Your task to perform on an android device: find which apps use the phone's location Image 0: 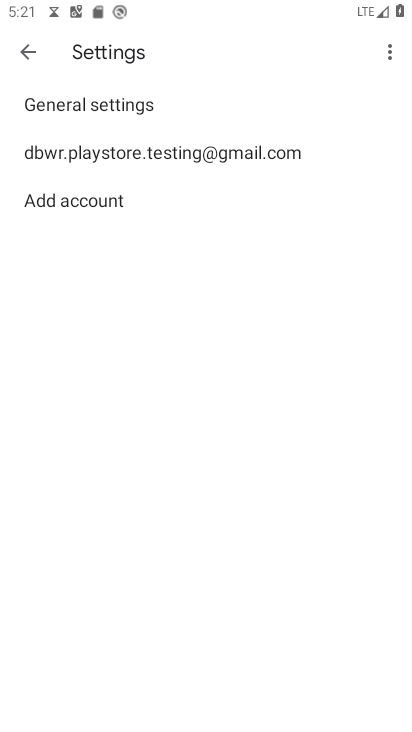
Step 0: press home button
Your task to perform on an android device: find which apps use the phone's location Image 1: 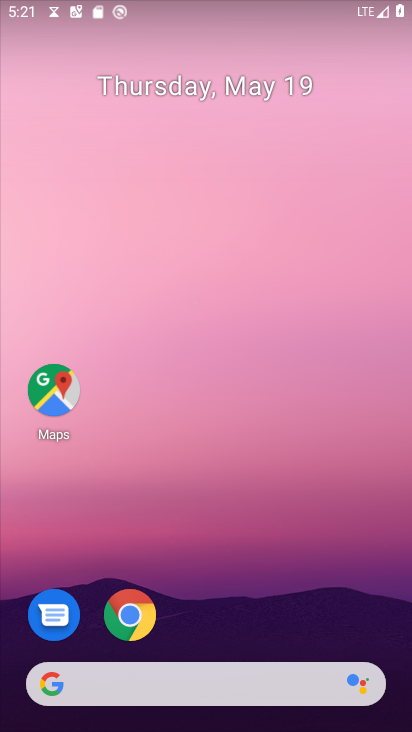
Step 1: drag from (285, 674) to (345, 42)
Your task to perform on an android device: find which apps use the phone's location Image 2: 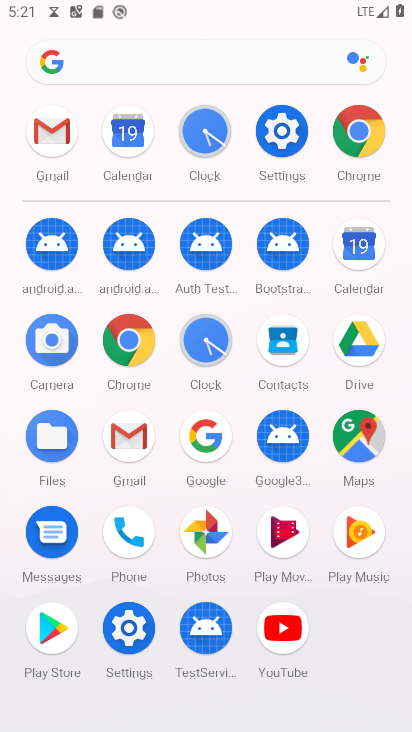
Step 2: click (288, 133)
Your task to perform on an android device: find which apps use the phone's location Image 3: 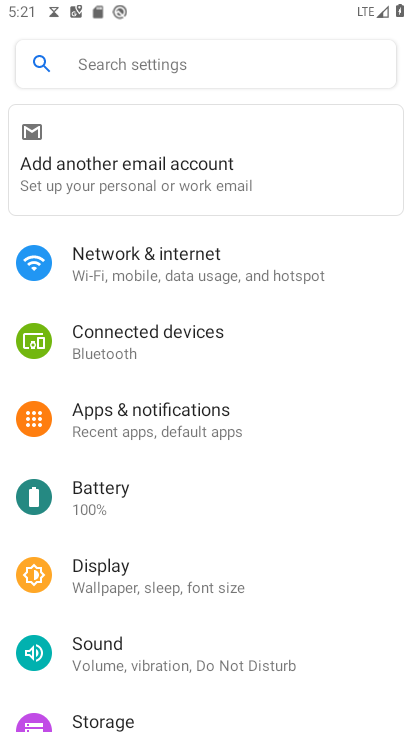
Step 3: drag from (193, 628) to (286, 152)
Your task to perform on an android device: find which apps use the phone's location Image 4: 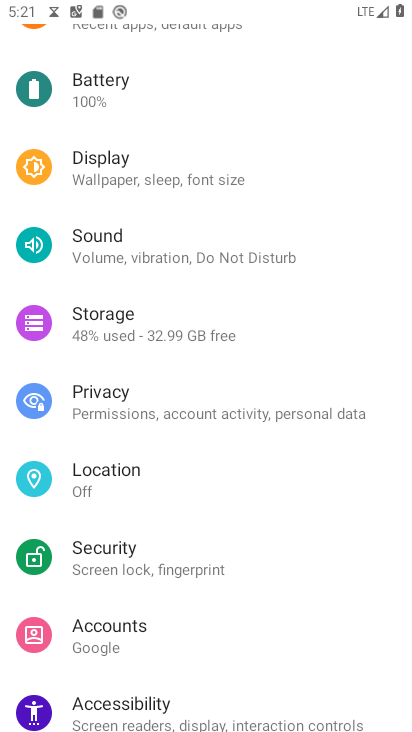
Step 4: click (129, 472)
Your task to perform on an android device: find which apps use the phone's location Image 5: 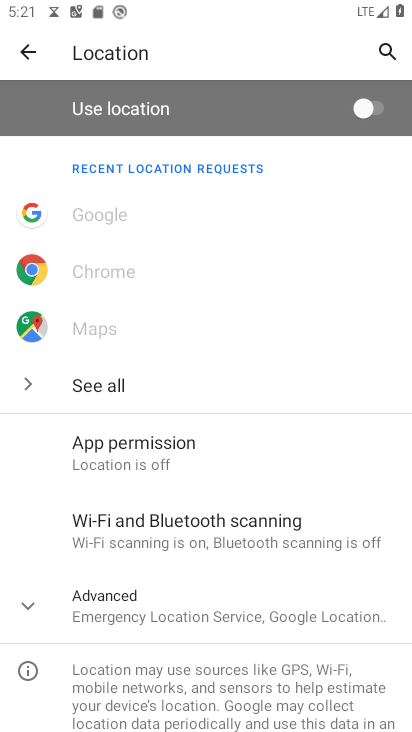
Step 5: drag from (255, 580) to (271, 275)
Your task to perform on an android device: find which apps use the phone's location Image 6: 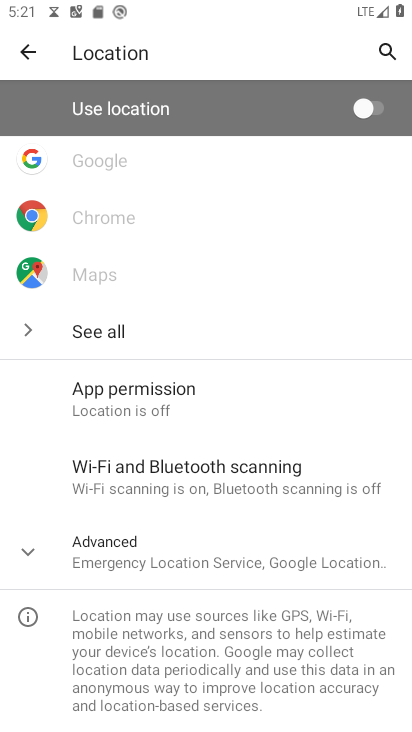
Step 6: click (131, 392)
Your task to perform on an android device: find which apps use the phone's location Image 7: 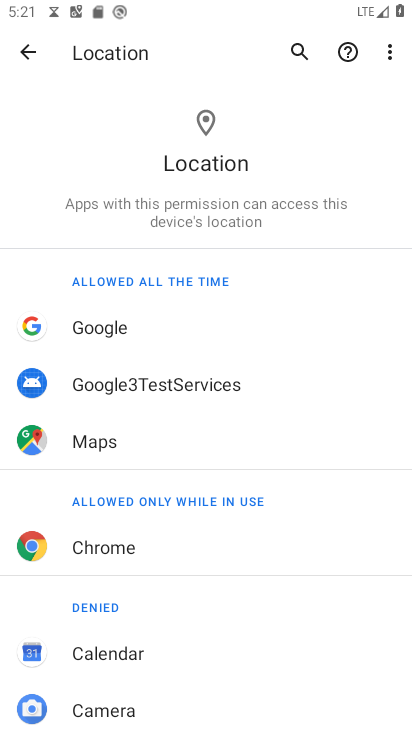
Step 7: task complete